Your task to perform on an android device: install app "Roku - Official Remote Control" Image 0: 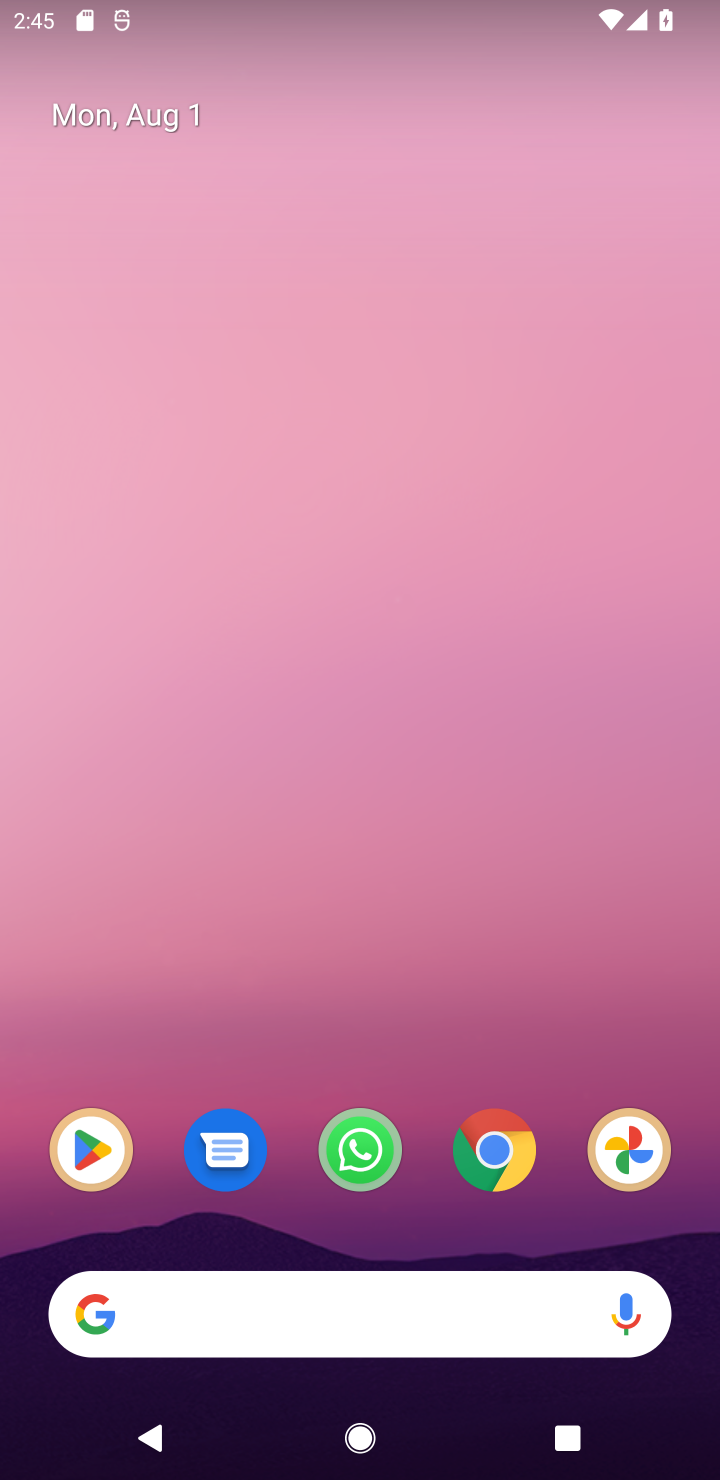
Step 0: drag from (382, 1236) to (390, 59)
Your task to perform on an android device: install app "Roku - Official Remote Control" Image 1: 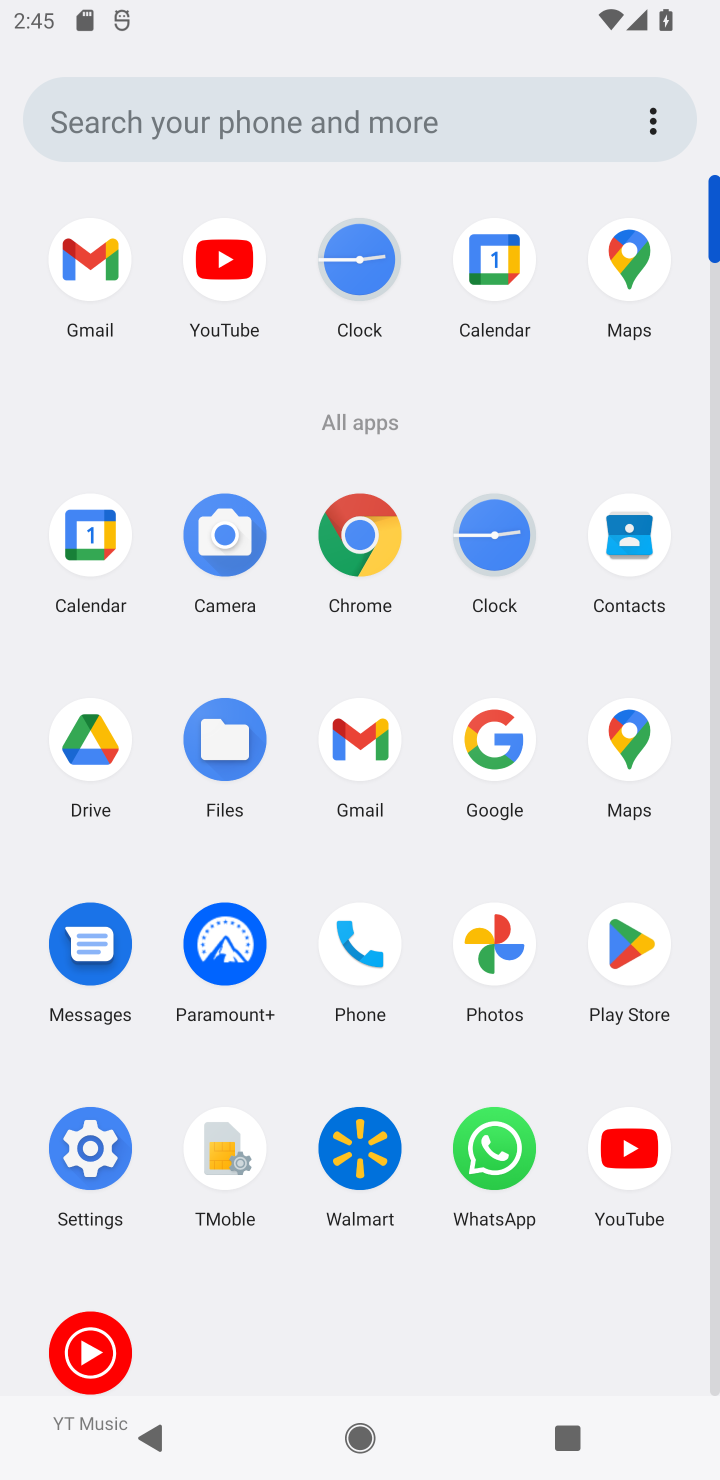
Step 1: click (644, 1010)
Your task to perform on an android device: install app "Roku - Official Remote Control" Image 2: 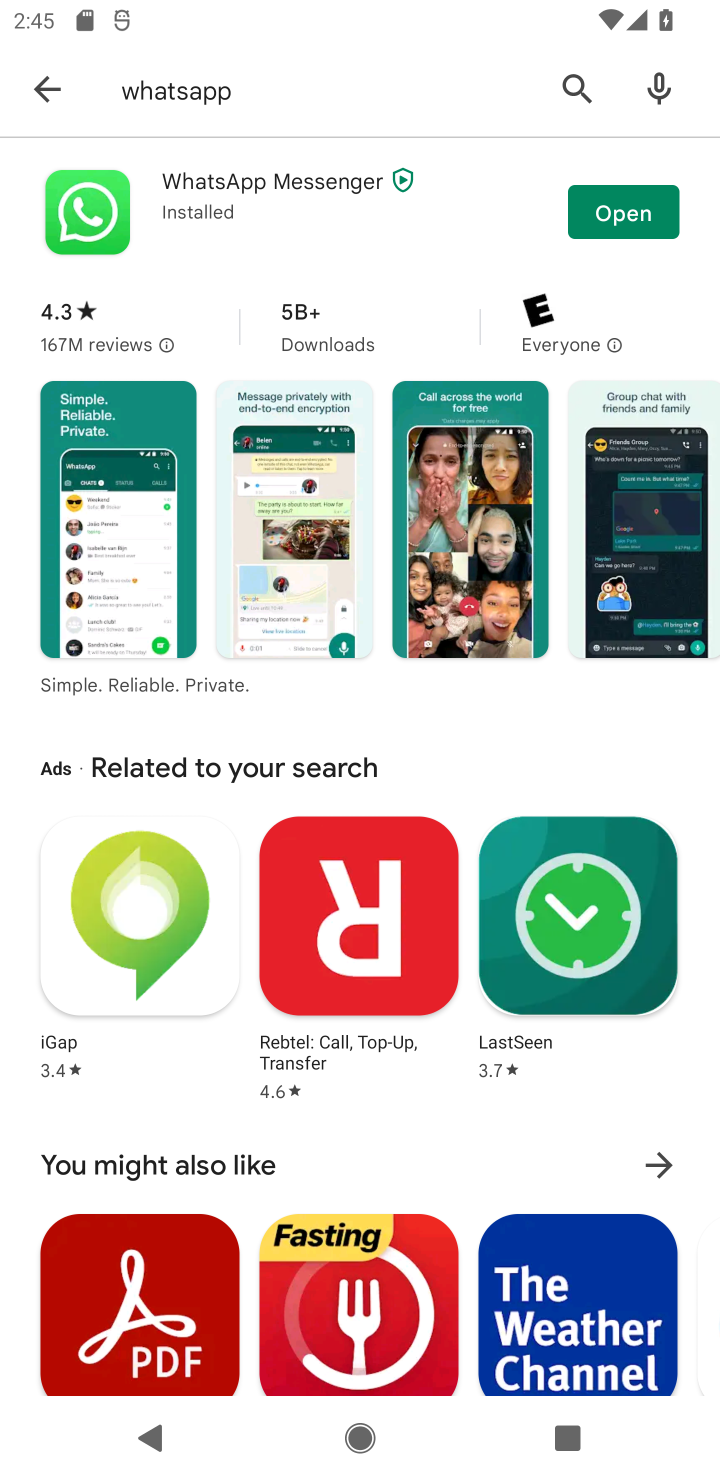
Step 2: click (549, 98)
Your task to perform on an android device: install app "Roku - Official Remote Control" Image 3: 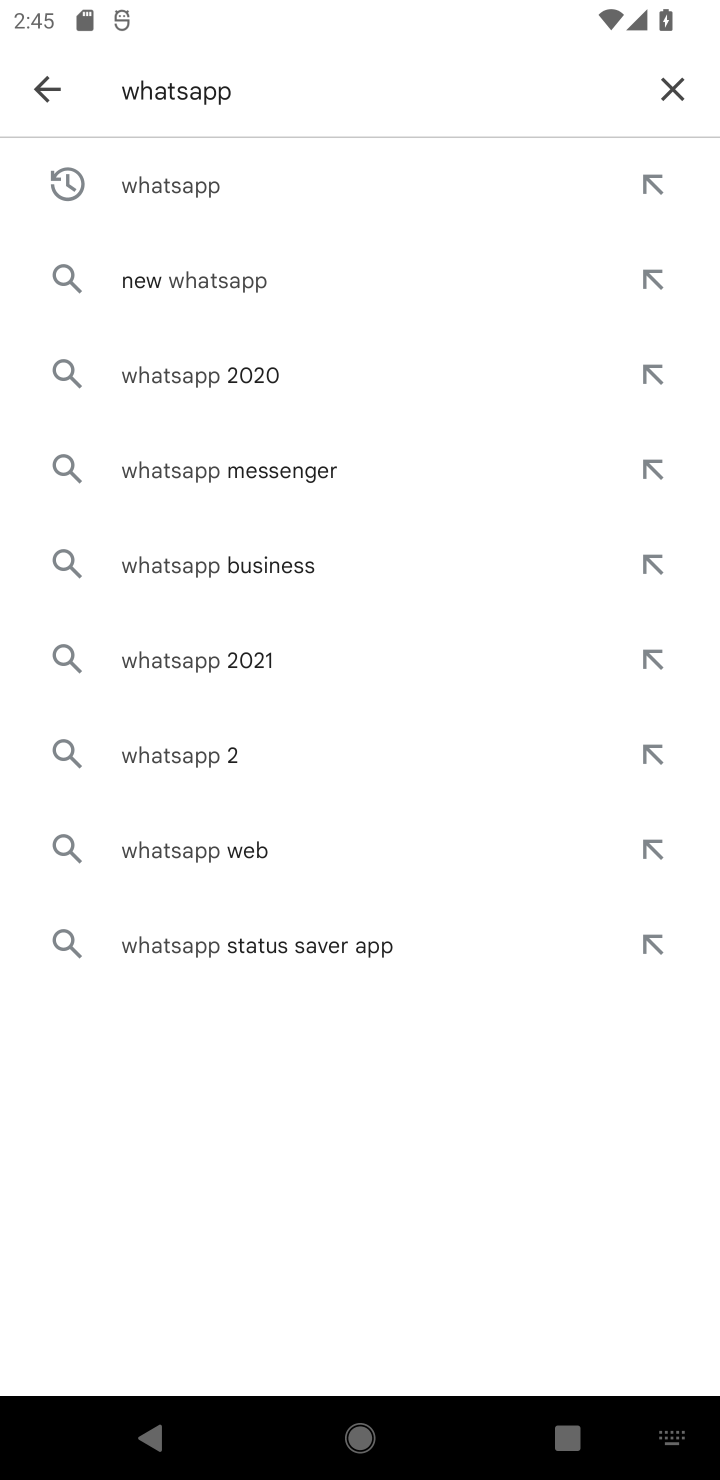
Step 3: click (672, 98)
Your task to perform on an android device: install app "Roku - Official Remote Control" Image 4: 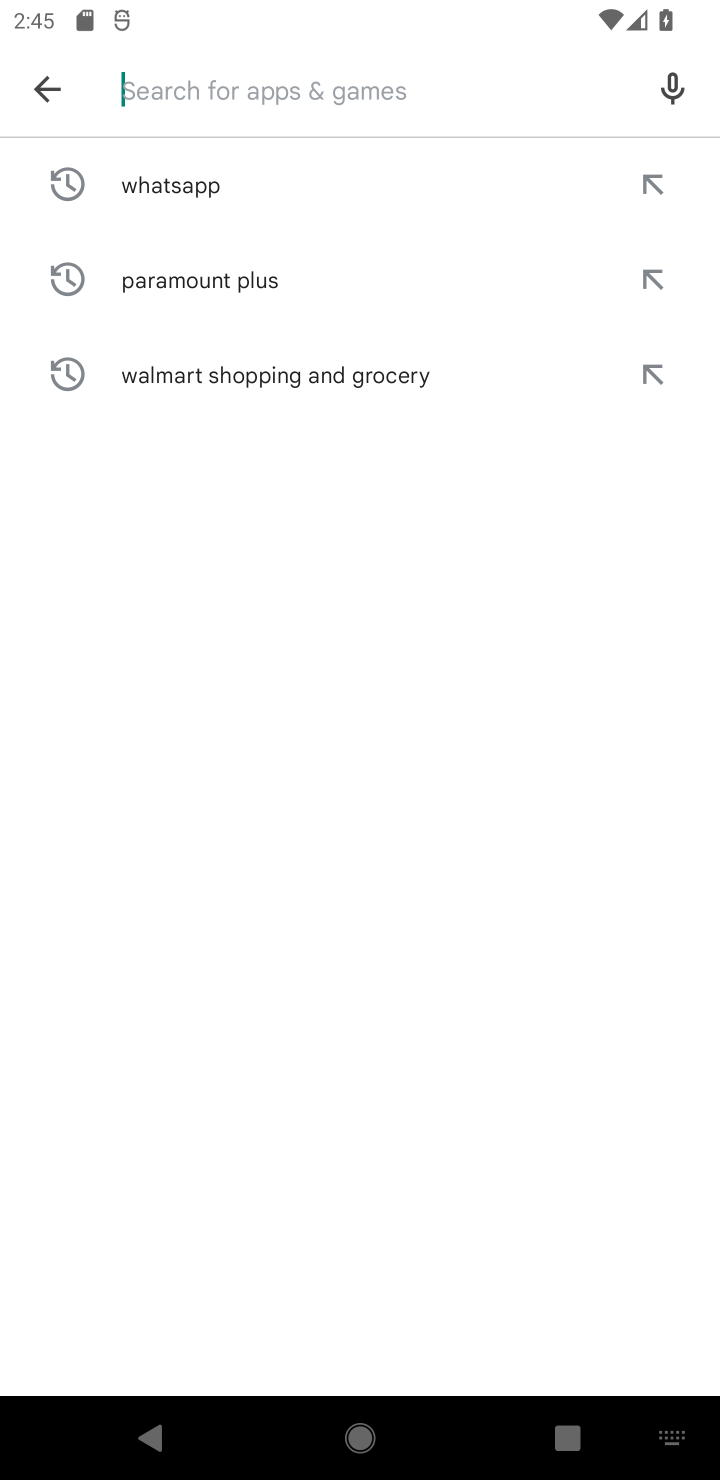
Step 4: type "roku"
Your task to perform on an android device: install app "Roku - Official Remote Control" Image 5: 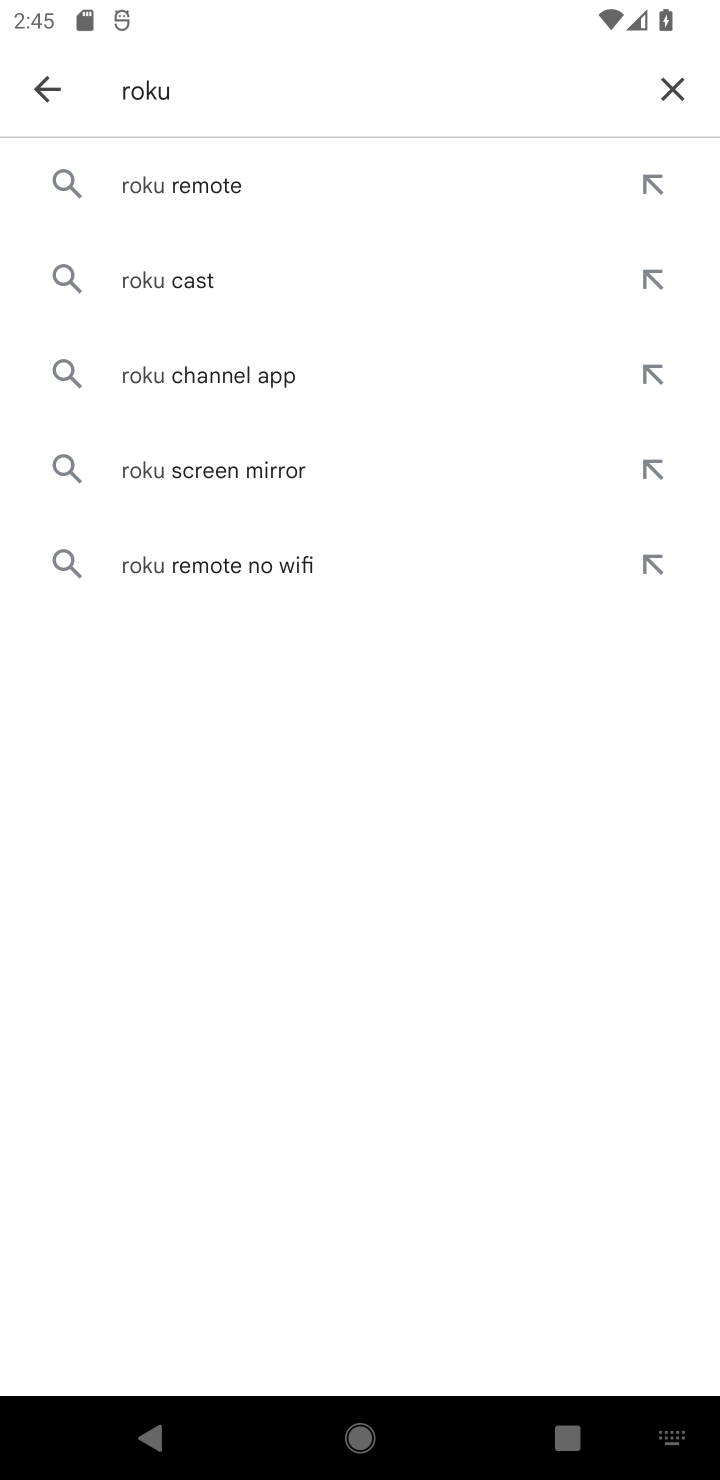
Step 5: click (241, 196)
Your task to perform on an android device: install app "Roku - Official Remote Control" Image 6: 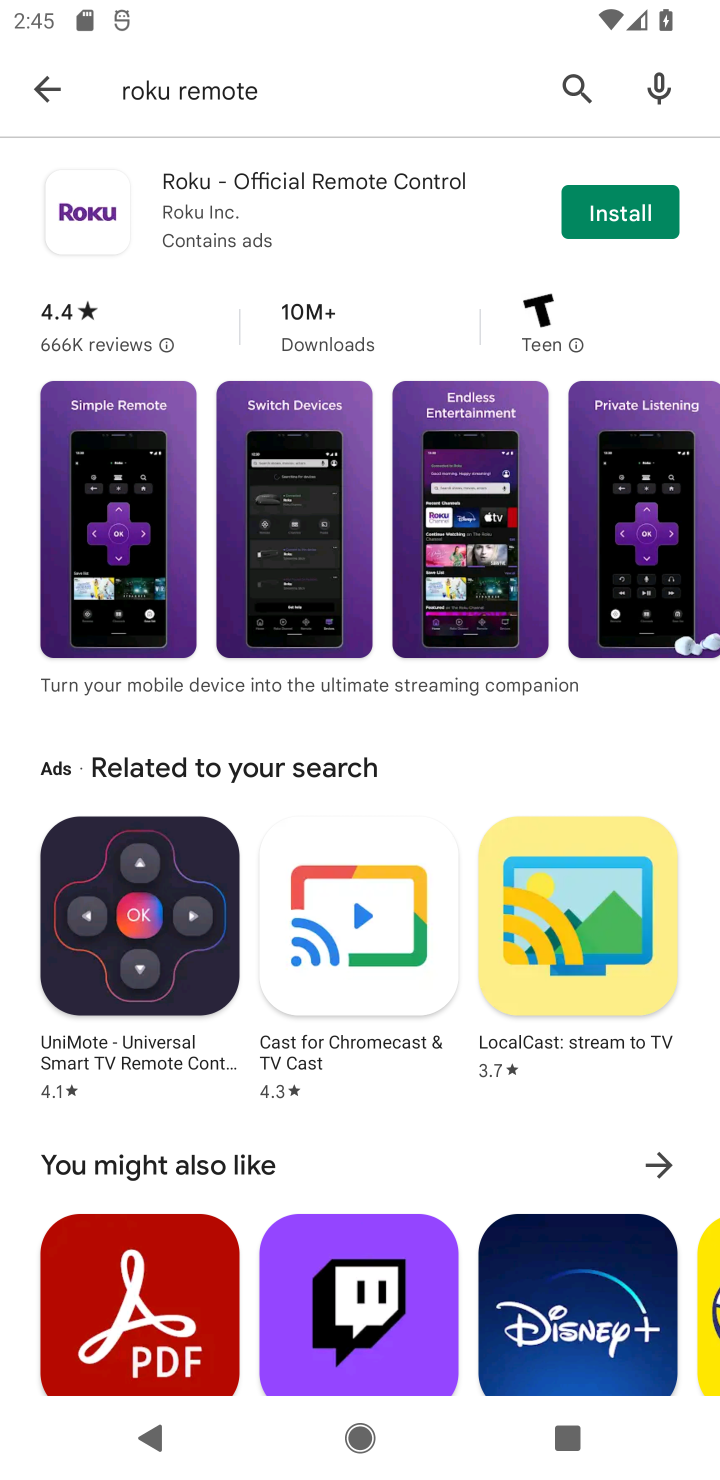
Step 6: click (570, 222)
Your task to perform on an android device: install app "Roku - Official Remote Control" Image 7: 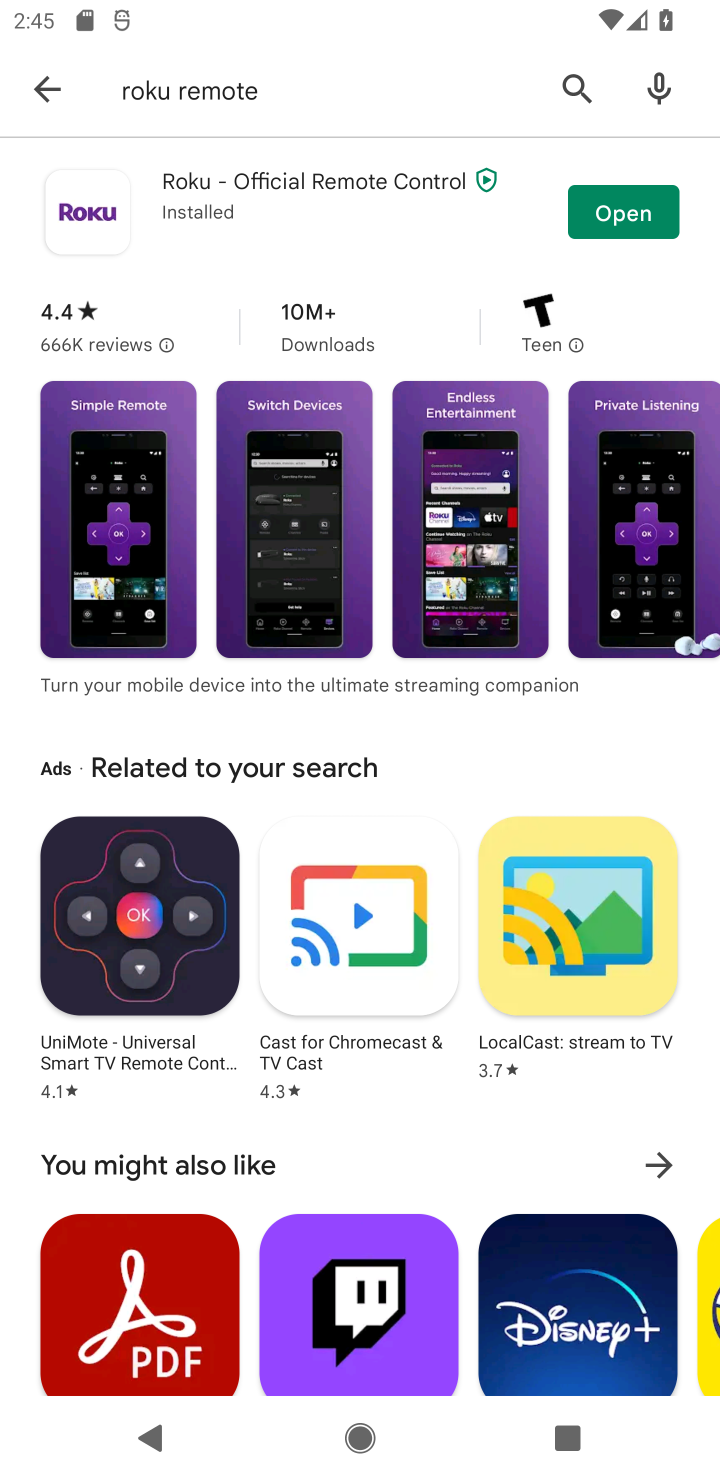
Step 7: task complete